Your task to perform on an android device: turn on javascript in the chrome app Image 0: 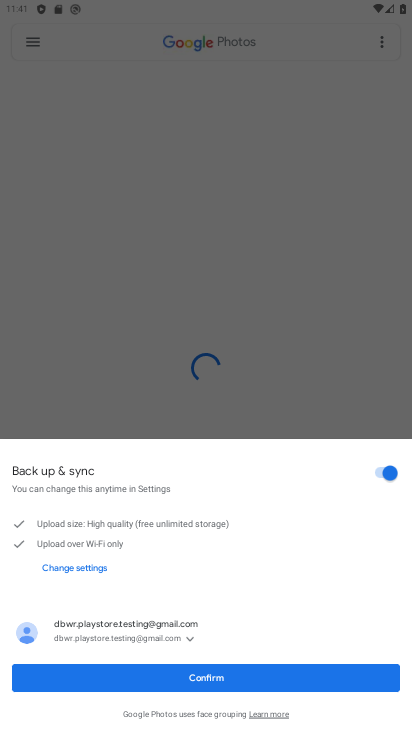
Step 0: drag from (231, 405) to (291, 226)
Your task to perform on an android device: turn on javascript in the chrome app Image 1: 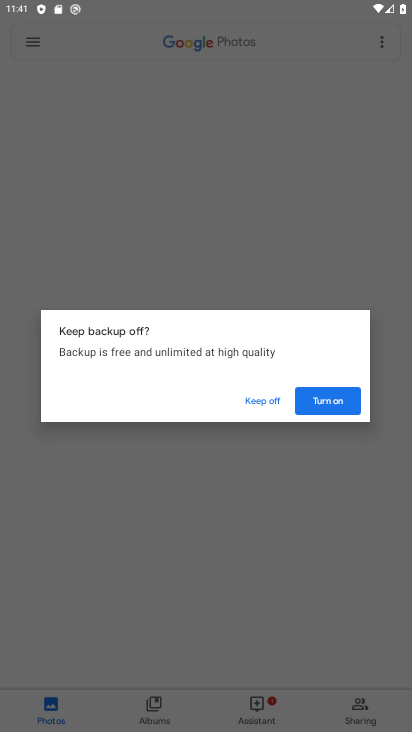
Step 1: press home button
Your task to perform on an android device: turn on javascript in the chrome app Image 2: 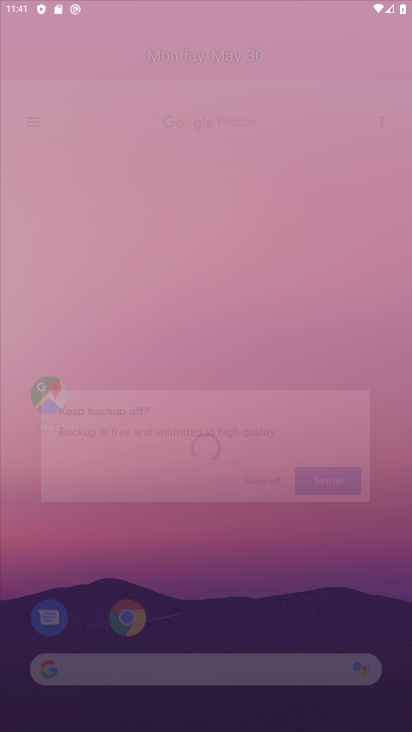
Step 2: drag from (255, 669) to (306, 58)
Your task to perform on an android device: turn on javascript in the chrome app Image 3: 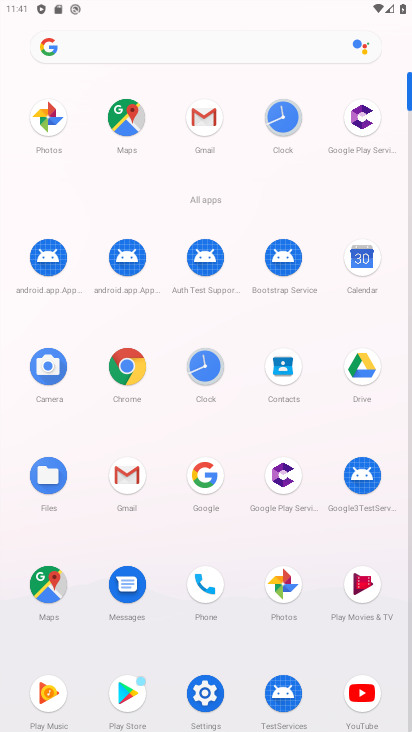
Step 3: click (131, 370)
Your task to perform on an android device: turn on javascript in the chrome app Image 4: 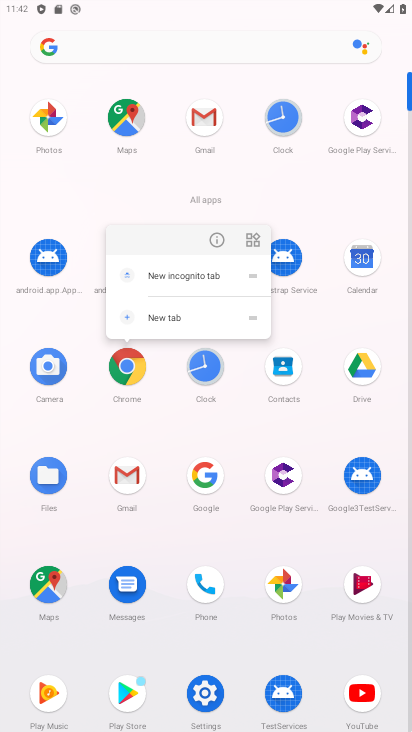
Step 4: click (208, 246)
Your task to perform on an android device: turn on javascript in the chrome app Image 5: 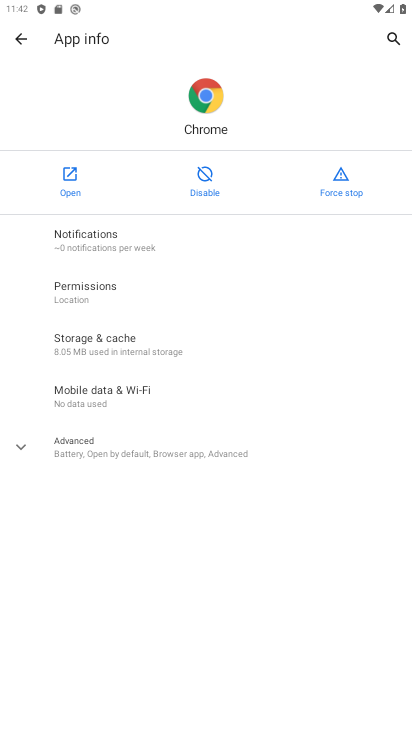
Step 5: click (60, 183)
Your task to perform on an android device: turn on javascript in the chrome app Image 6: 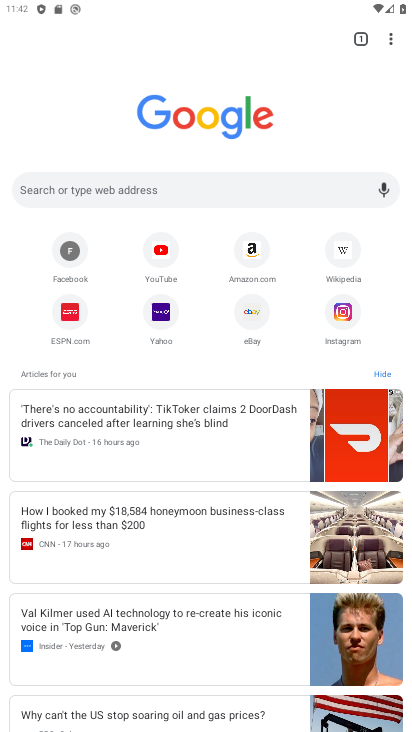
Step 6: click (385, 46)
Your task to perform on an android device: turn on javascript in the chrome app Image 7: 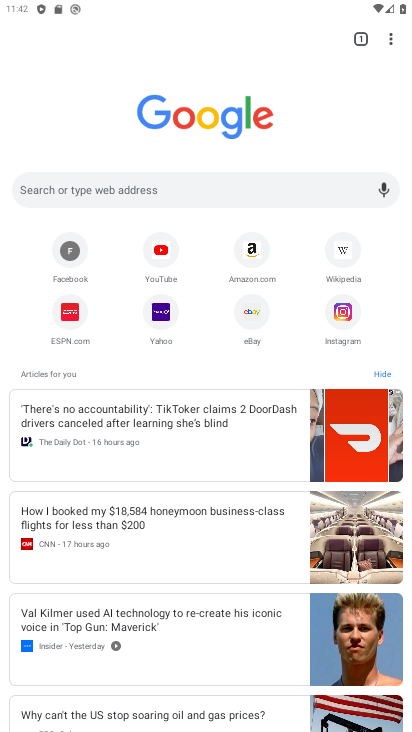
Step 7: drag from (388, 41) to (257, 364)
Your task to perform on an android device: turn on javascript in the chrome app Image 8: 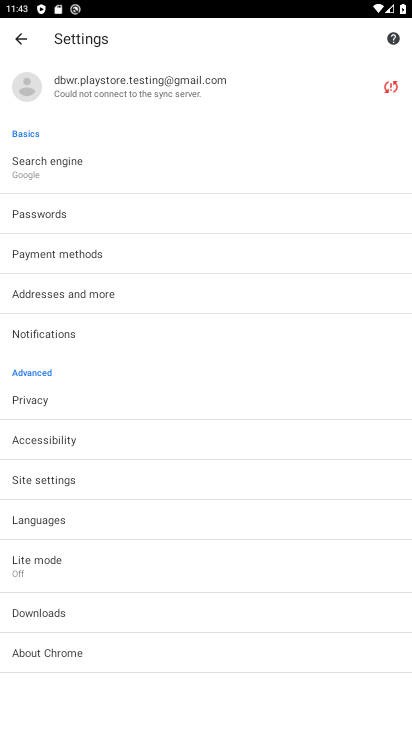
Step 8: click (71, 476)
Your task to perform on an android device: turn on javascript in the chrome app Image 9: 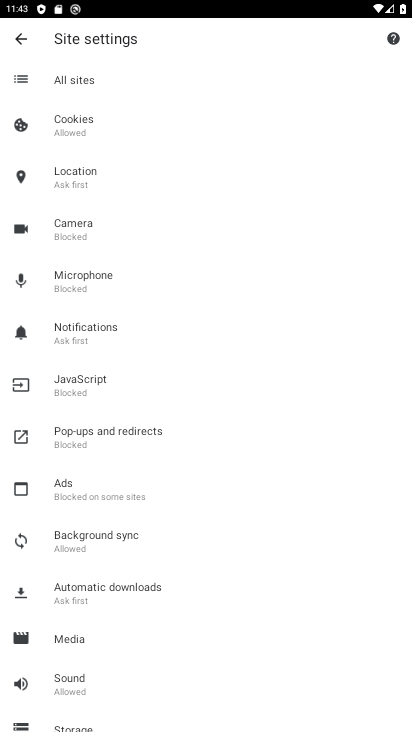
Step 9: click (115, 386)
Your task to perform on an android device: turn on javascript in the chrome app Image 10: 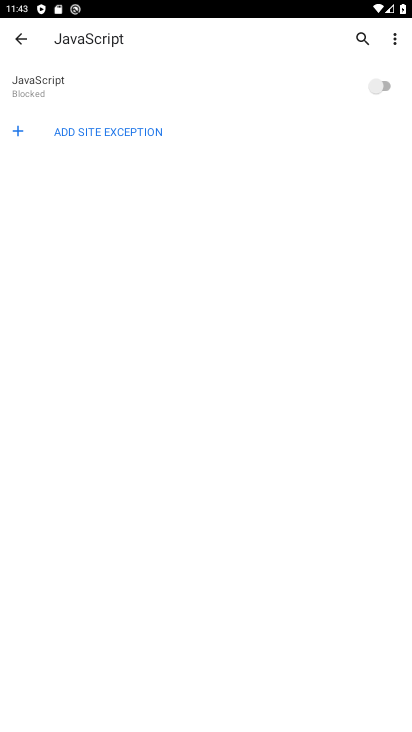
Step 10: click (376, 91)
Your task to perform on an android device: turn on javascript in the chrome app Image 11: 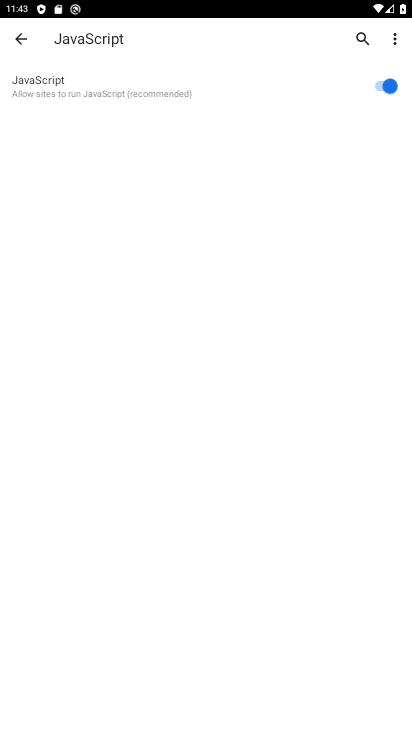
Step 11: task complete